Your task to perform on an android device: check the backup settings in the google photos Image 0: 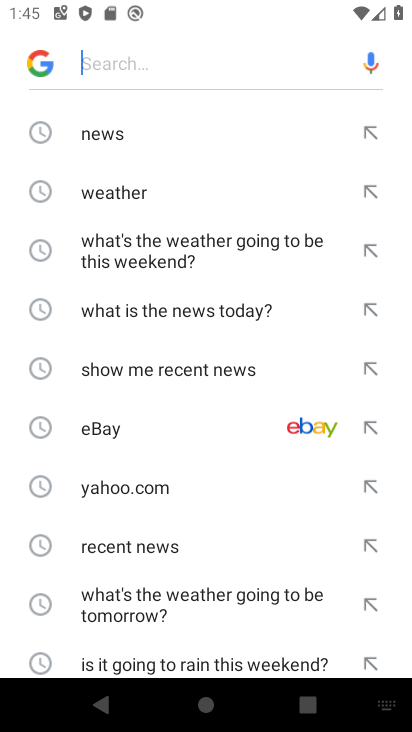
Step 0: press home button
Your task to perform on an android device: check the backup settings in the google photos Image 1: 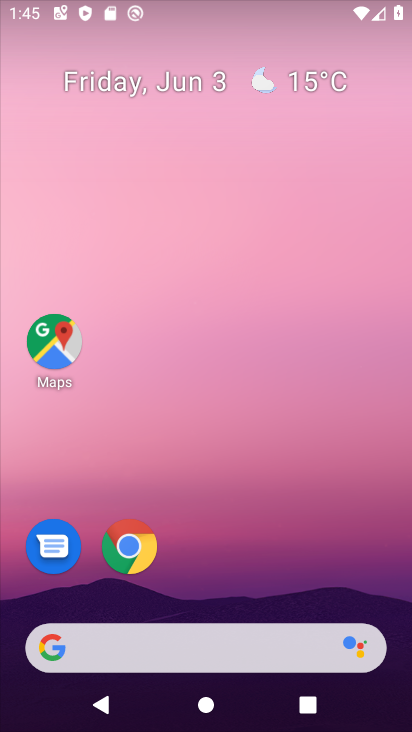
Step 1: drag from (346, 547) to (282, 32)
Your task to perform on an android device: check the backup settings in the google photos Image 2: 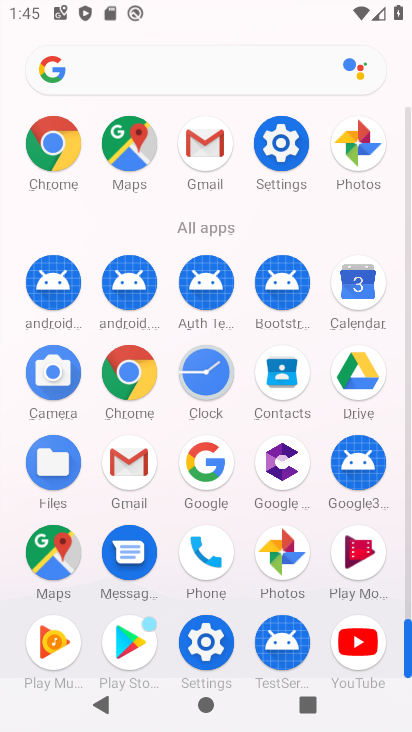
Step 2: click (269, 554)
Your task to perform on an android device: check the backup settings in the google photos Image 3: 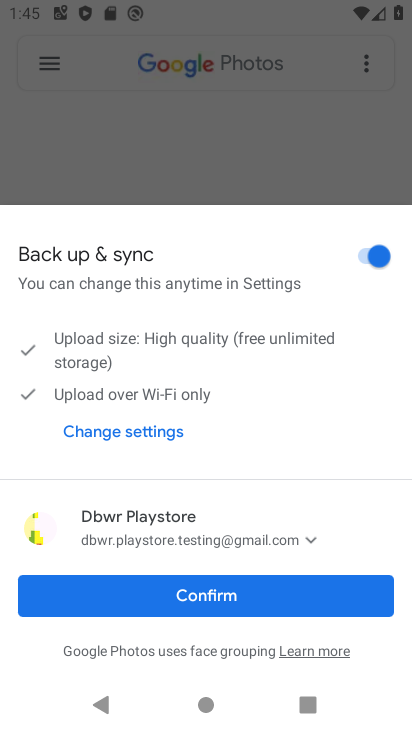
Step 3: click (218, 593)
Your task to perform on an android device: check the backup settings in the google photos Image 4: 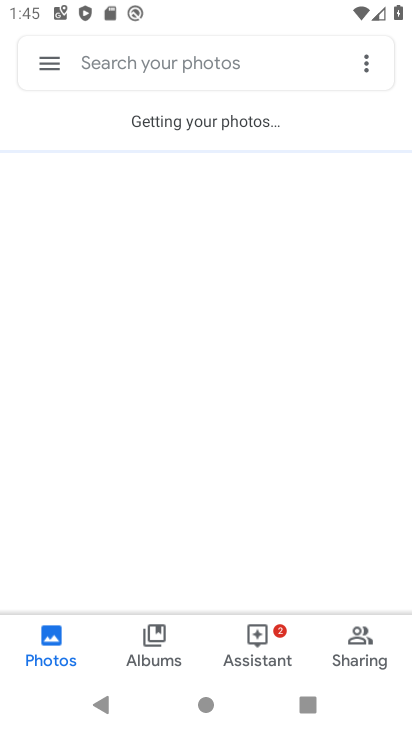
Step 4: click (56, 71)
Your task to perform on an android device: check the backup settings in the google photos Image 5: 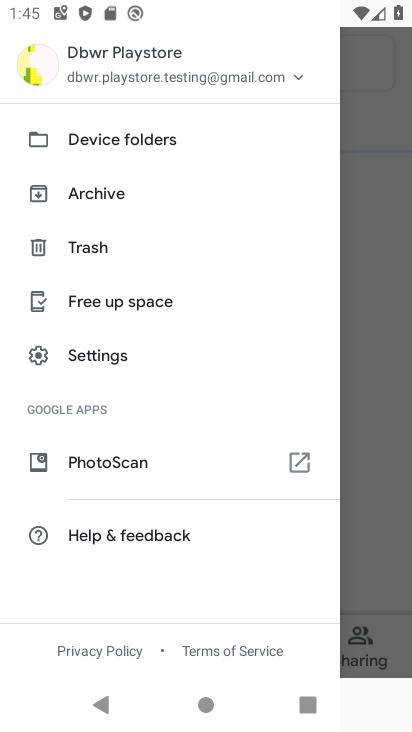
Step 5: drag from (178, 146) to (242, 525)
Your task to perform on an android device: check the backup settings in the google photos Image 6: 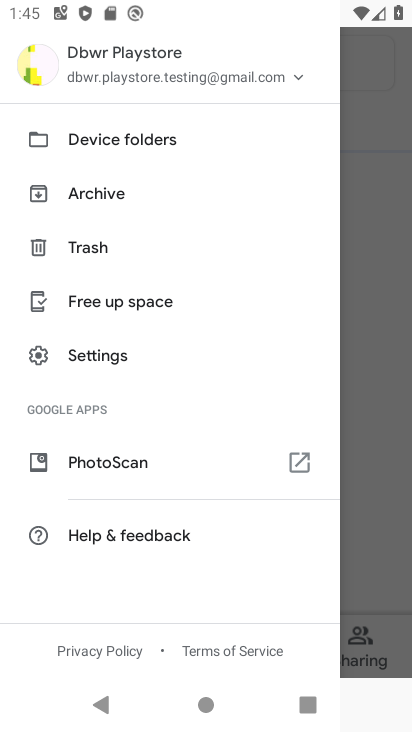
Step 6: drag from (213, 338) to (213, 195)
Your task to perform on an android device: check the backup settings in the google photos Image 7: 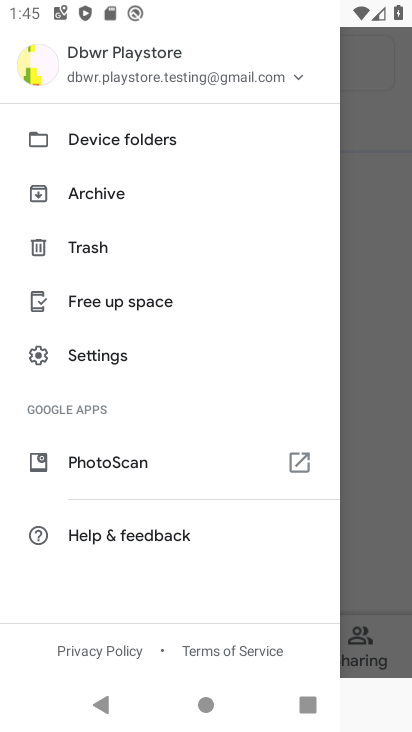
Step 7: click (103, 362)
Your task to perform on an android device: check the backup settings in the google photos Image 8: 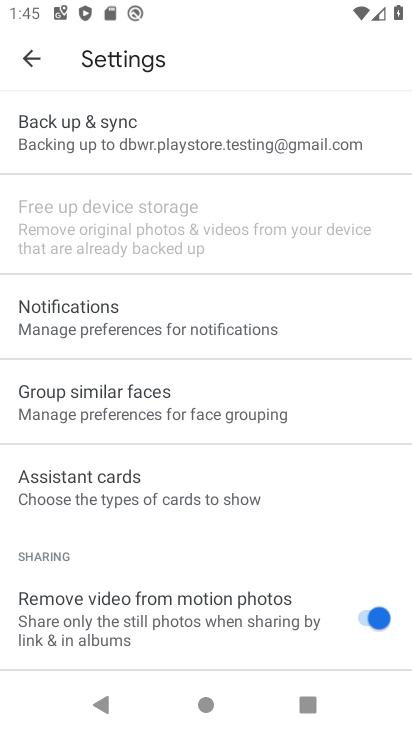
Step 8: click (183, 148)
Your task to perform on an android device: check the backup settings in the google photos Image 9: 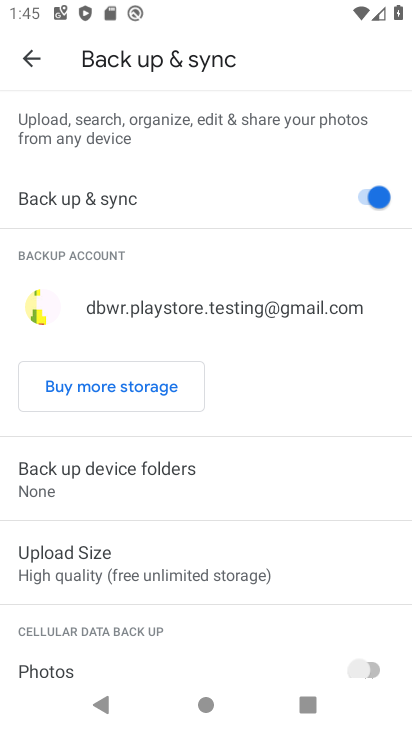
Step 9: task complete